Your task to perform on an android device: Open Android settings Image 0: 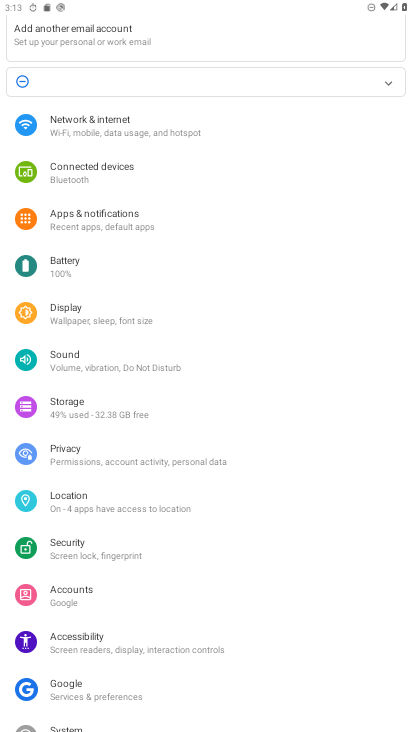
Step 0: drag from (335, 558) to (288, 1)
Your task to perform on an android device: Open Android settings Image 1: 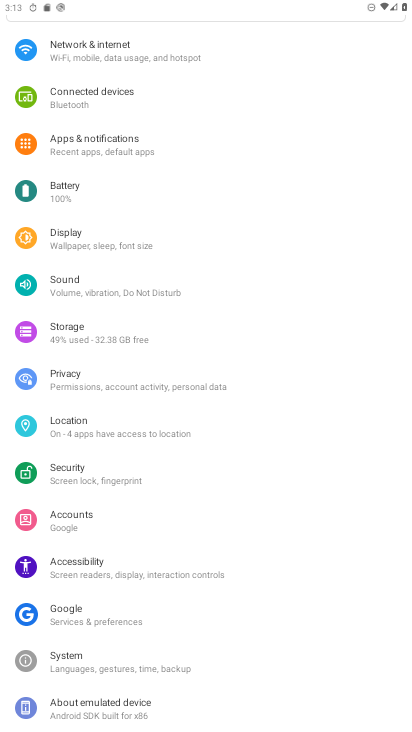
Step 1: click (85, 655)
Your task to perform on an android device: Open Android settings Image 2: 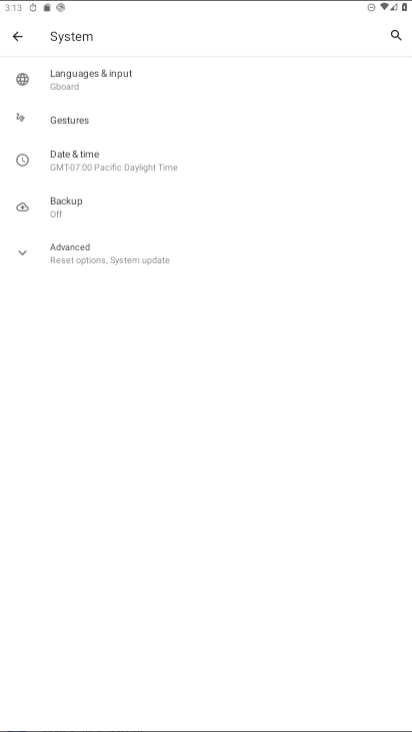
Step 2: click (85, 655)
Your task to perform on an android device: Open Android settings Image 3: 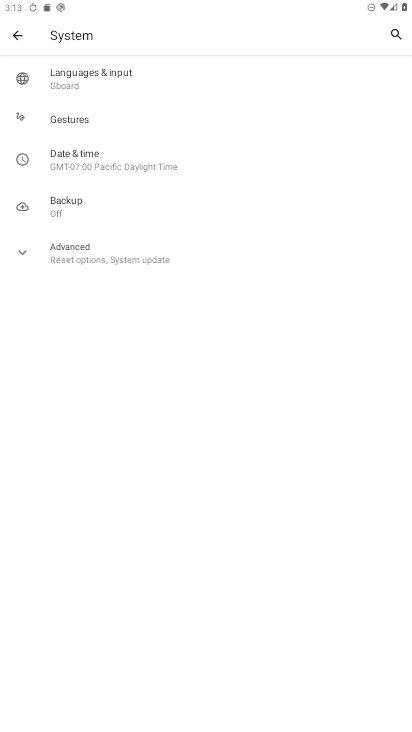
Step 3: task complete